Your task to perform on an android device: remove spam from my inbox in the gmail app Image 0: 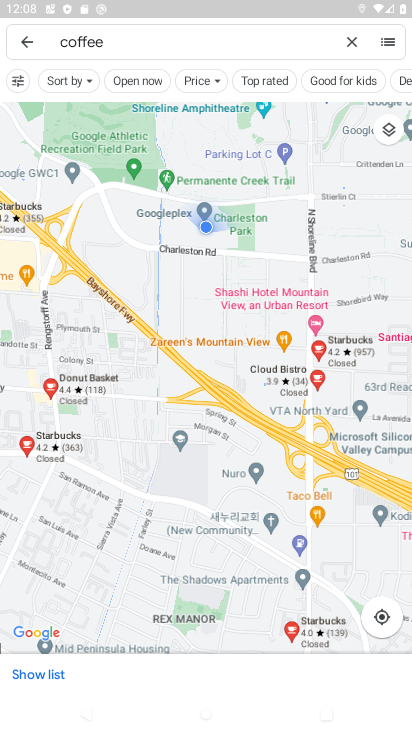
Step 0: press home button
Your task to perform on an android device: remove spam from my inbox in the gmail app Image 1: 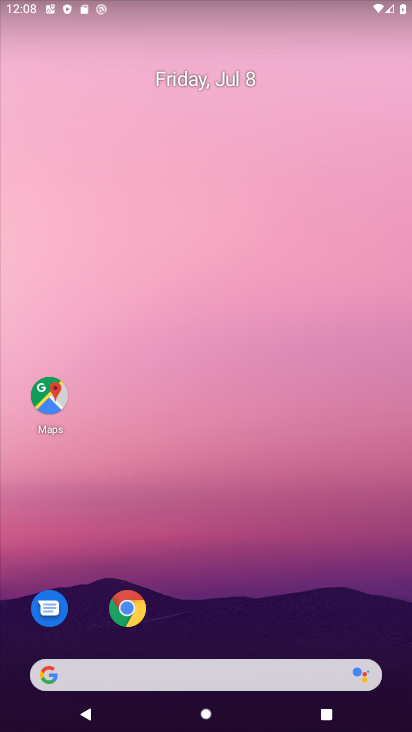
Step 1: drag from (251, 646) to (255, 249)
Your task to perform on an android device: remove spam from my inbox in the gmail app Image 2: 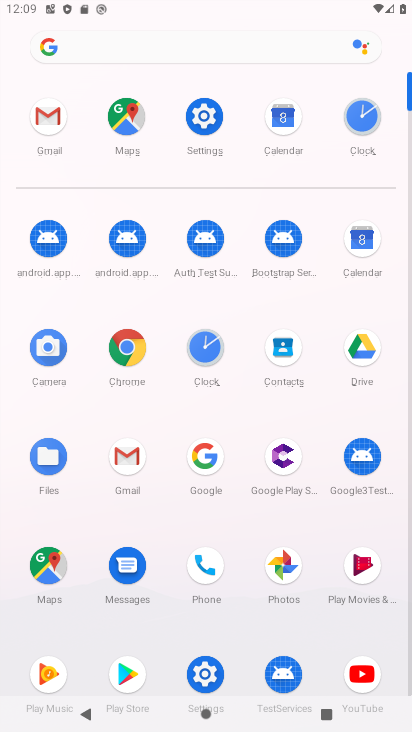
Step 2: click (60, 128)
Your task to perform on an android device: remove spam from my inbox in the gmail app Image 3: 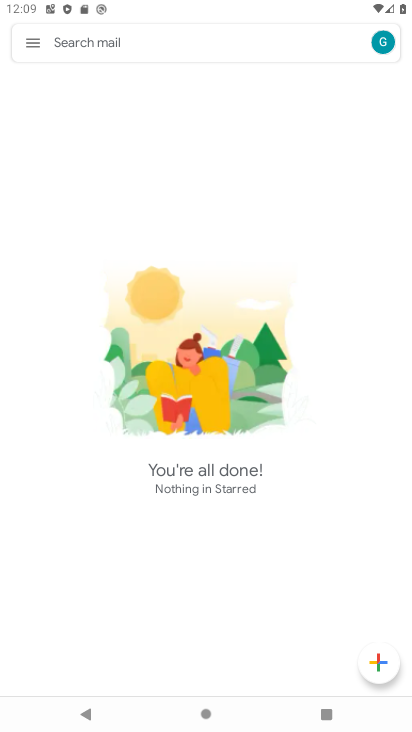
Step 3: click (34, 37)
Your task to perform on an android device: remove spam from my inbox in the gmail app Image 4: 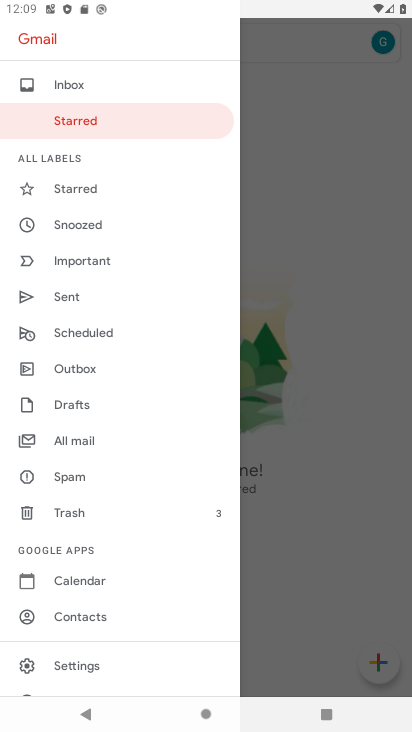
Step 4: click (114, 445)
Your task to perform on an android device: remove spam from my inbox in the gmail app Image 5: 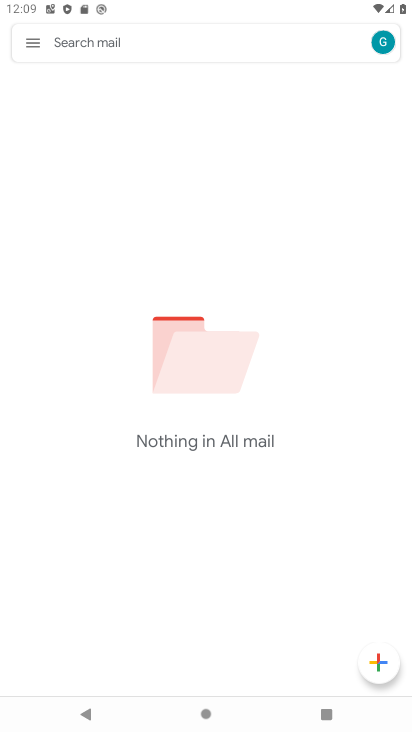
Step 5: task complete